Your task to perform on an android device: What's the weather going to be tomorrow? Image 0: 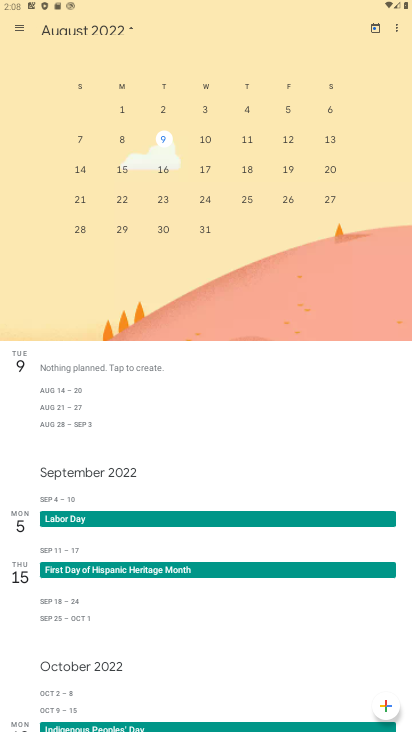
Step 0: press home button
Your task to perform on an android device: What's the weather going to be tomorrow? Image 1: 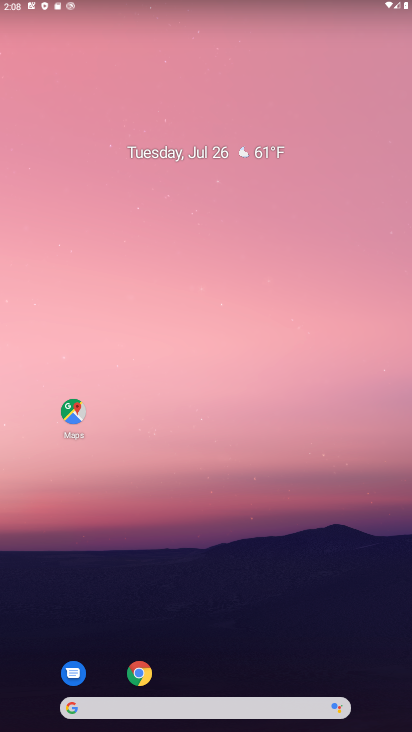
Step 1: drag from (222, 575) to (288, 270)
Your task to perform on an android device: What's the weather going to be tomorrow? Image 2: 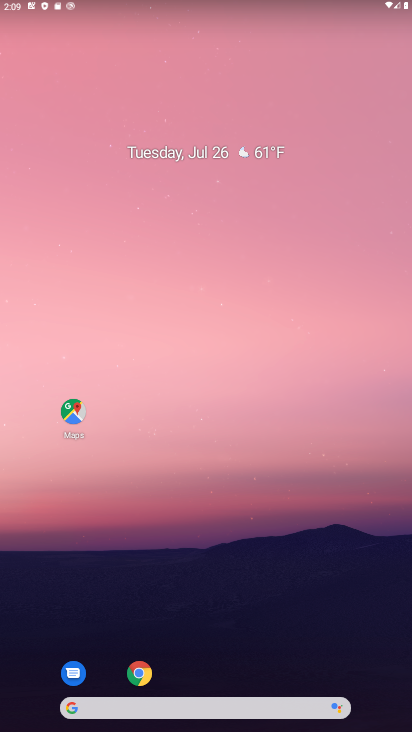
Step 2: click (166, 705)
Your task to perform on an android device: What's the weather going to be tomorrow? Image 3: 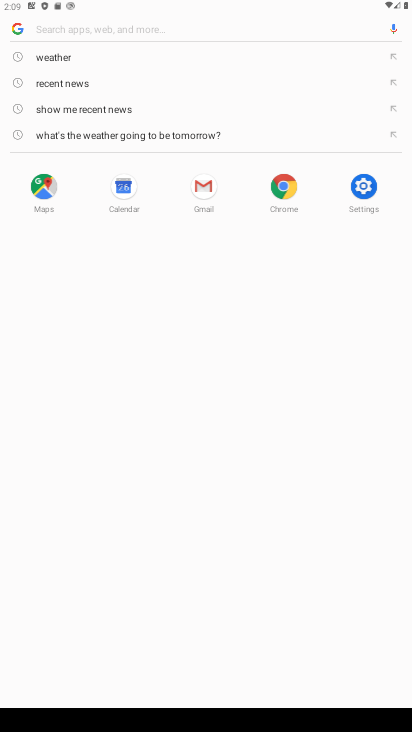
Step 3: type "What's the weather going to be tomorrow?"
Your task to perform on an android device: What's the weather going to be tomorrow? Image 4: 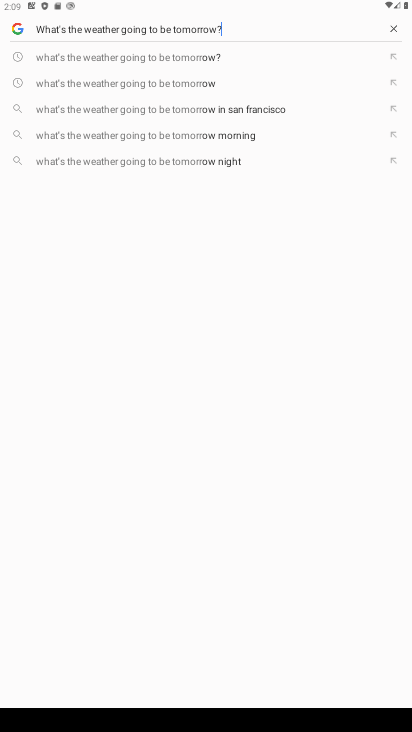
Step 4: type ""
Your task to perform on an android device: What's the weather going to be tomorrow? Image 5: 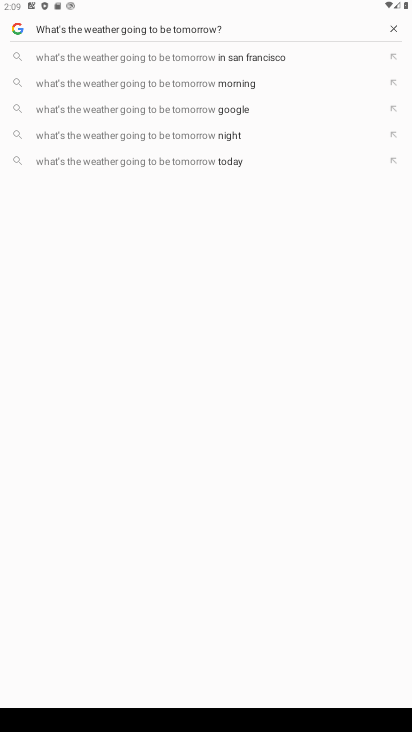
Step 5: click (88, 108)
Your task to perform on an android device: What's the weather going to be tomorrow? Image 6: 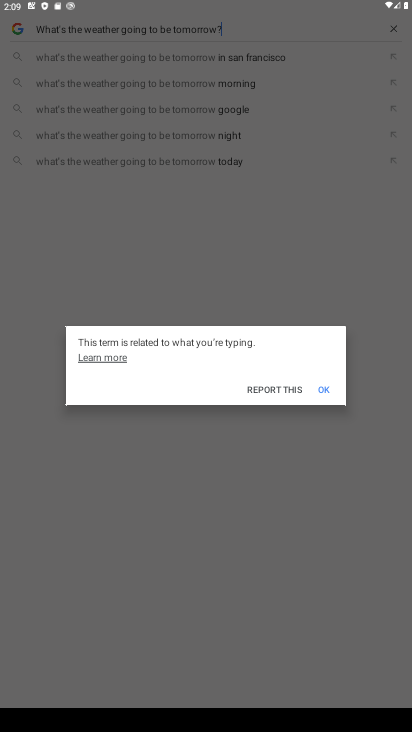
Step 6: click (326, 385)
Your task to perform on an android device: What's the weather going to be tomorrow? Image 7: 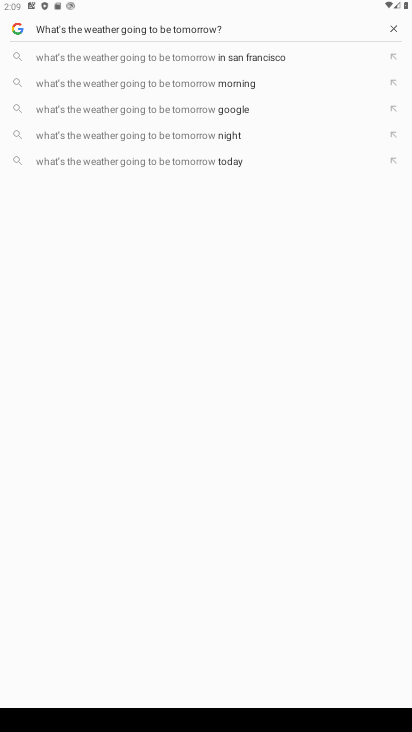
Step 7: click (96, 109)
Your task to perform on an android device: What's the weather going to be tomorrow? Image 8: 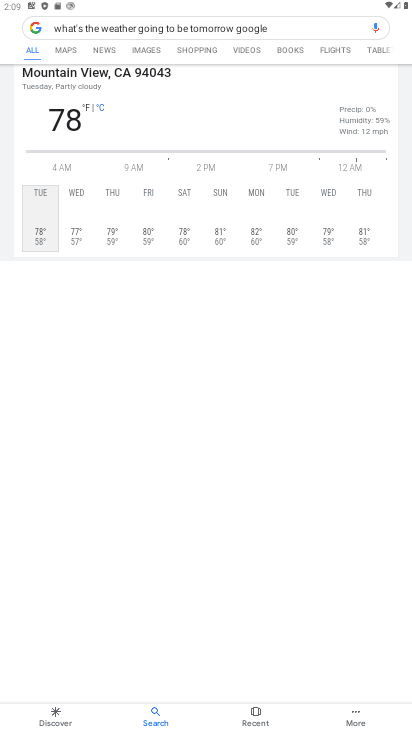
Step 8: task complete